Your task to perform on an android device: Go to internet settings Image 0: 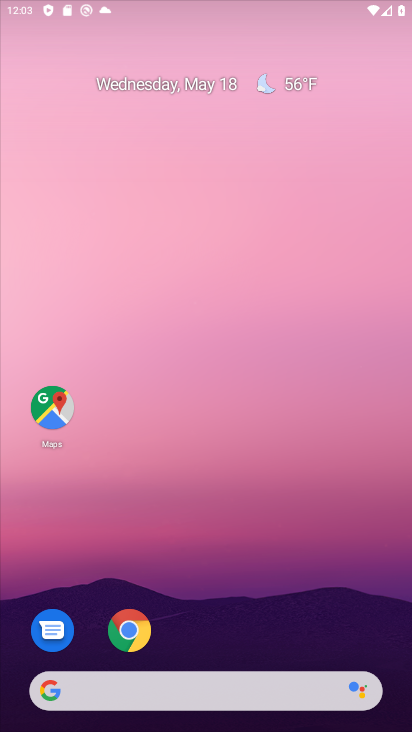
Step 0: drag from (291, 552) to (291, 124)
Your task to perform on an android device: Go to internet settings Image 1: 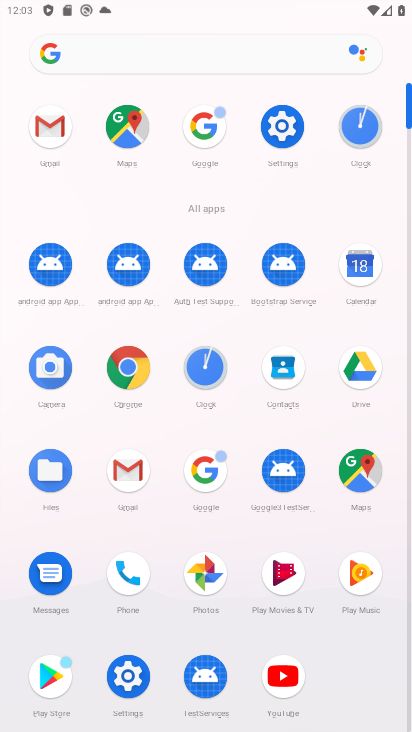
Step 1: click (292, 125)
Your task to perform on an android device: Go to internet settings Image 2: 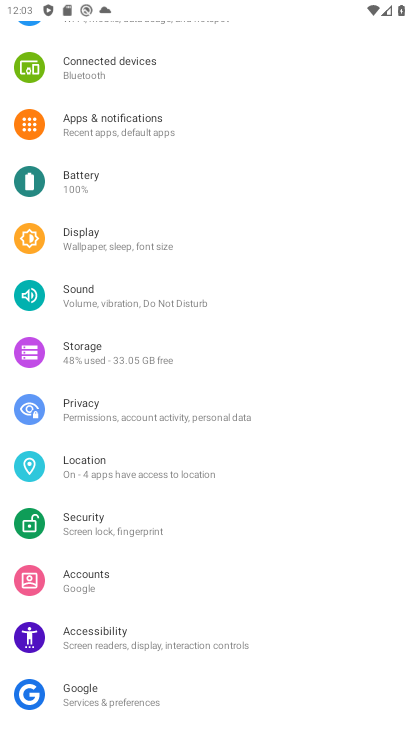
Step 2: drag from (223, 123) to (178, 719)
Your task to perform on an android device: Go to internet settings Image 3: 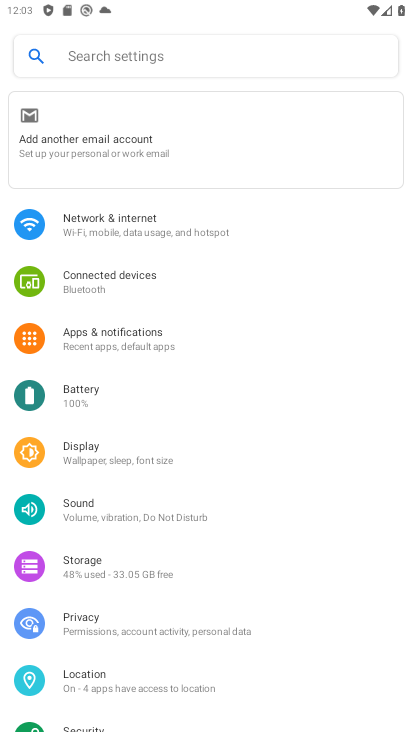
Step 3: click (125, 235)
Your task to perform on an android device: Go to internet settings Image 4: 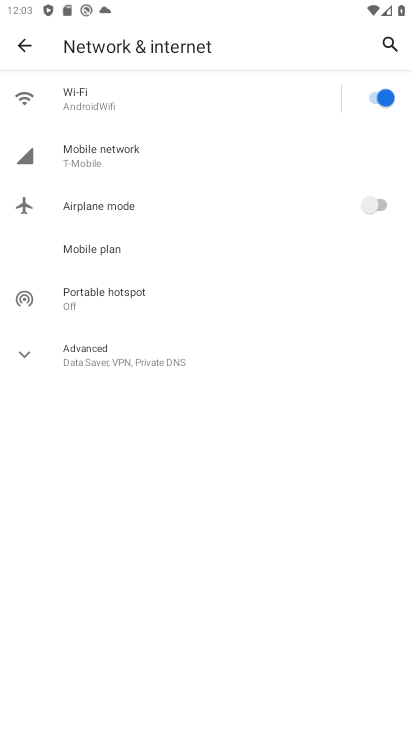
Step 4: task complete